Your task to perform on an android device: Open Google Maps and go to "Timeline" Image 0: 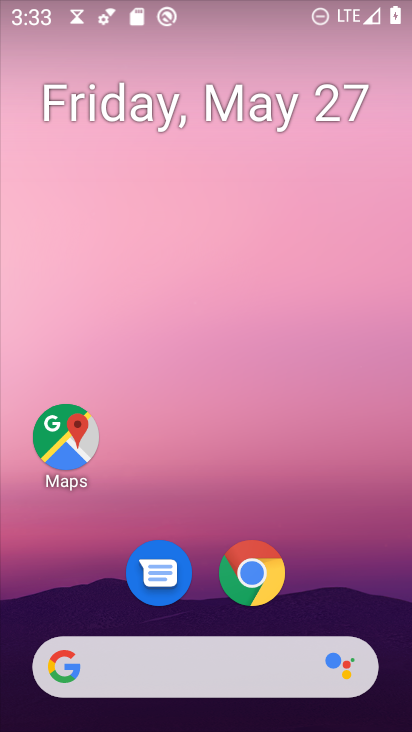
Step 0: click (63, 432)
Your task to perform on an android device: Open Google Maps and go to "Timeline" Image 1: 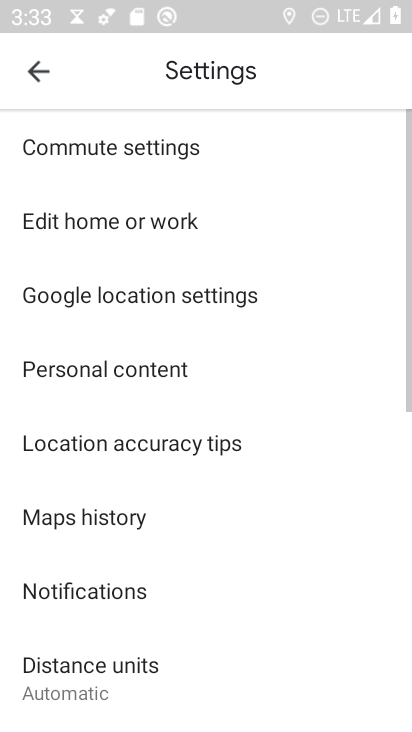
Step 1: click (18, 81)
Your task to perform on an android device: Open Google Maps and go to "Timeline" Image 2: 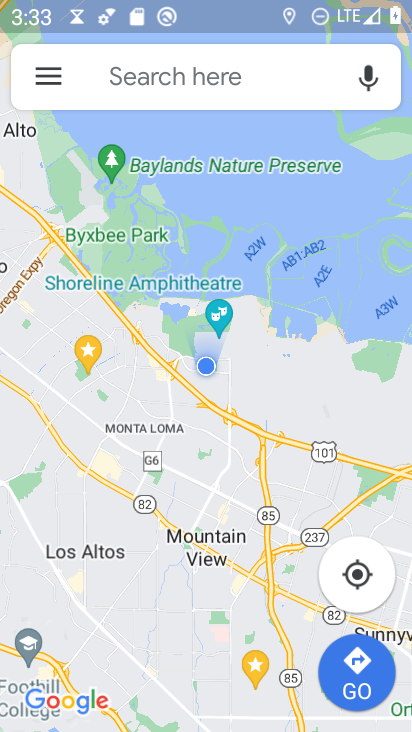
Step 2: click (39, 70)
Your task to perform on an android device: Open Google Maps and go to "Timeline" Image 3: 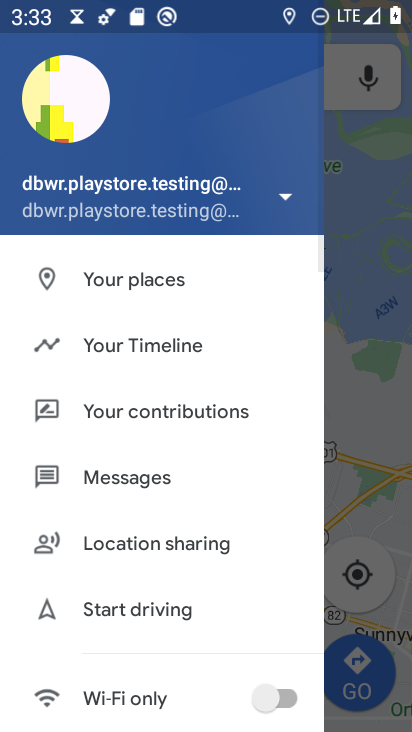
Step 3: click (87, 350)
Your task to perform on an android device: Open Google Maps and go to "Timeline" Image 4: 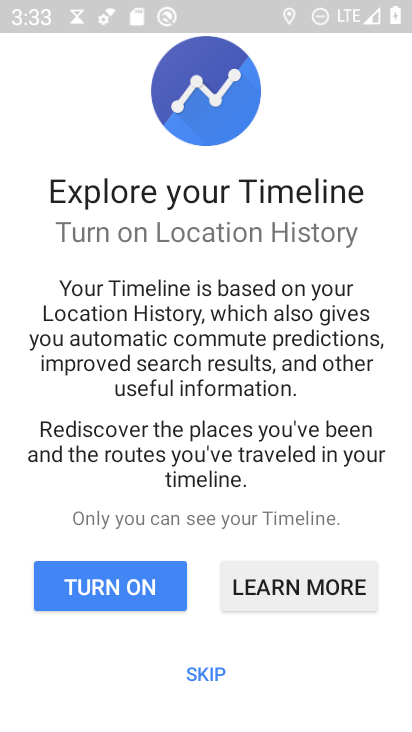
Step 4: click (216, 672)
Your task to perform on an android device: Open Google Maps and go to "Timeline" Image 5: 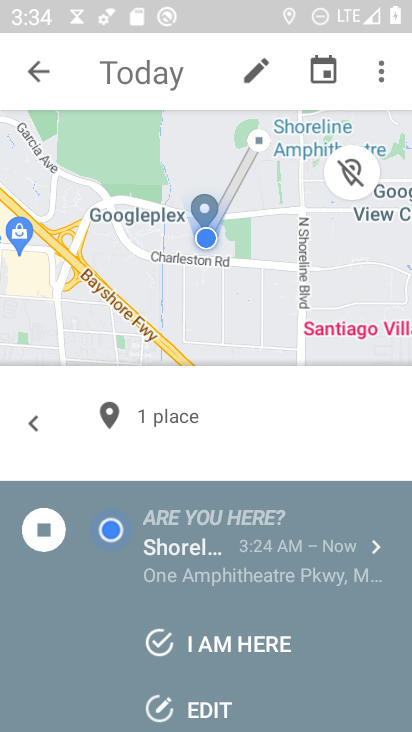
Step 5: task complete